Your task to perform on an android device: Open Google Maps and go to "Timeline" Image 0: 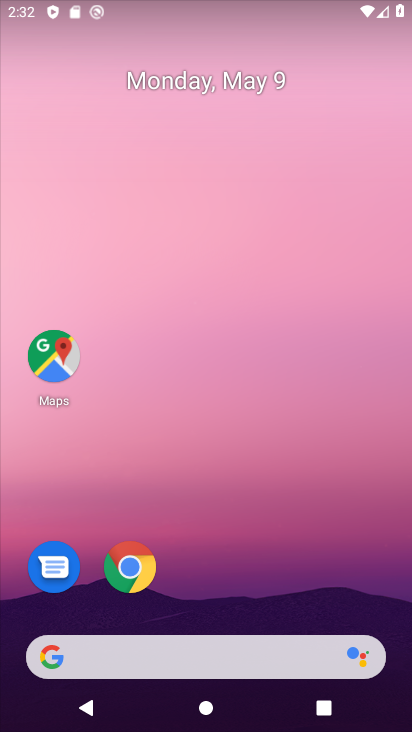
Step 0: click (56, 370)
Your task to perform on an android device: Open Google Maps and go to "Timeline" Image 1: 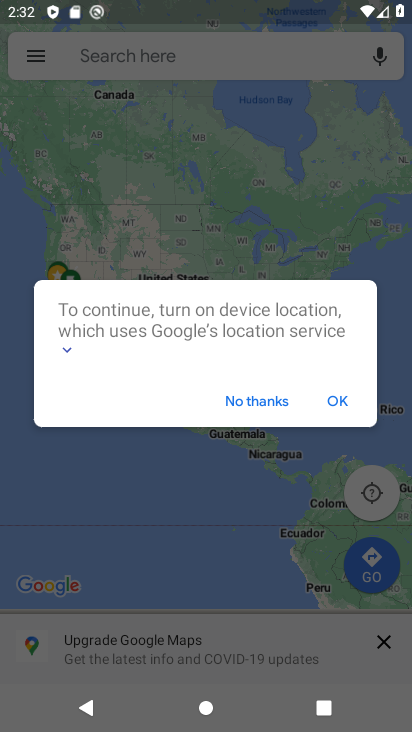
Step 1: click (333, 402)
Your task to perform on an android device: Open Google Maps and go to "Timeline" Image 2: 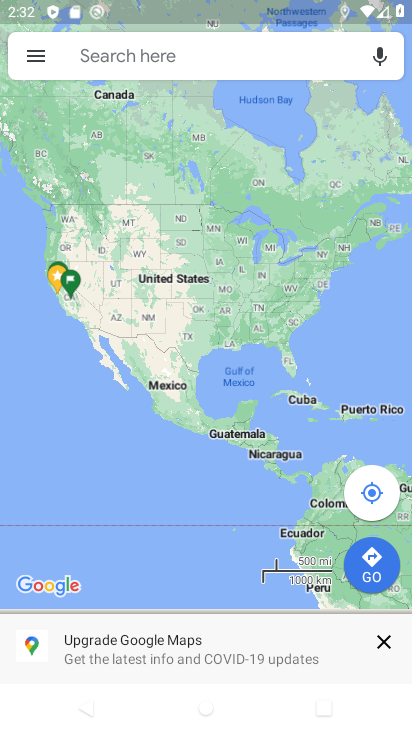
Step 2: click (47, 53)
Your task to perform on an android device: Open Google Maps and go to "Timeline" Image 3: 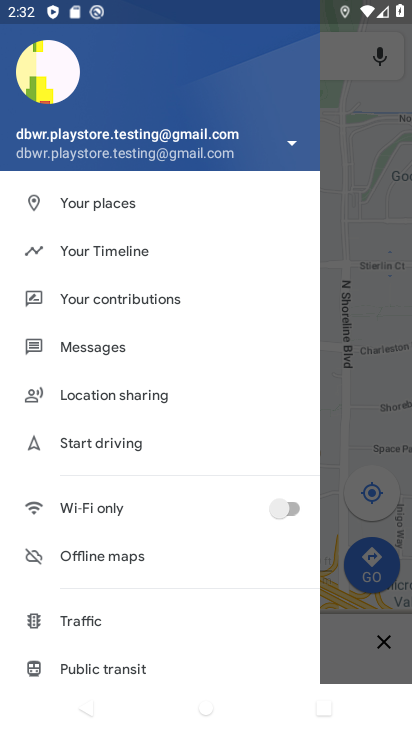
Step 3: click (127, 248)
Your task to perform on an android device: Open Google Maps and go to "Timeline" Image 4: 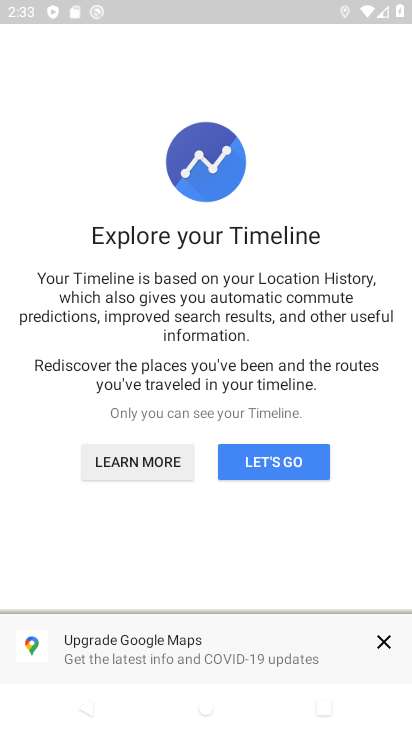
Step 4: drag from (405, 332) to (368, 336)
Your task to perform on an android device: Open Google Maps and go to "Timeline" Image 5: 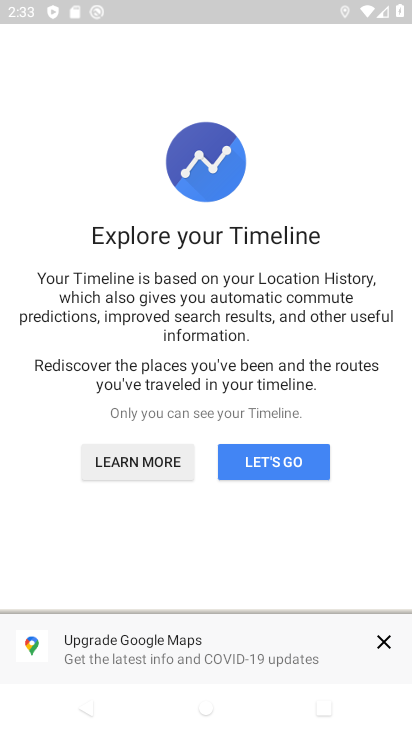
Step 5: click (371, 333)
Your task to perform on an android device: Open Google Maps and go to "Timeline" Image 6: 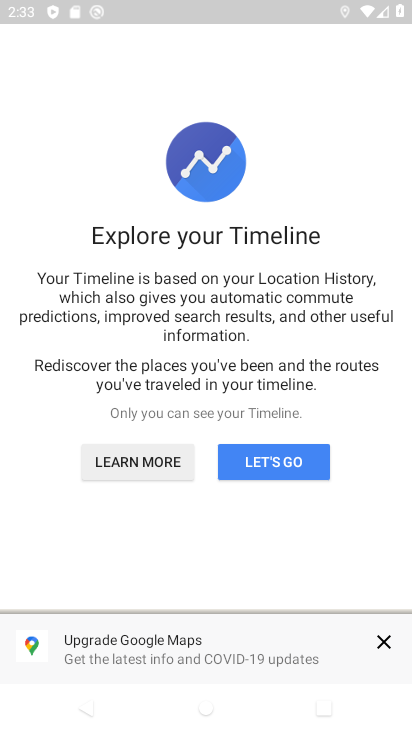
Step 6: click (235, 458)
Your task to perform on an android device: Open Google Maps and go to "Timeline" Image 7: 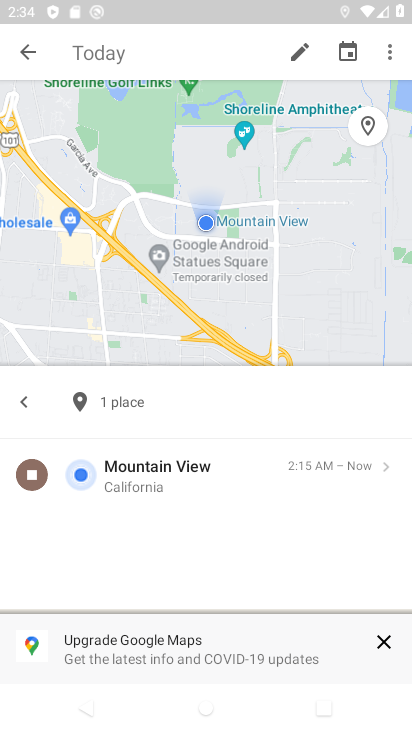
Step 7: task complete